Your task to perform on an android device: empty trash in the gmail app Image 0: 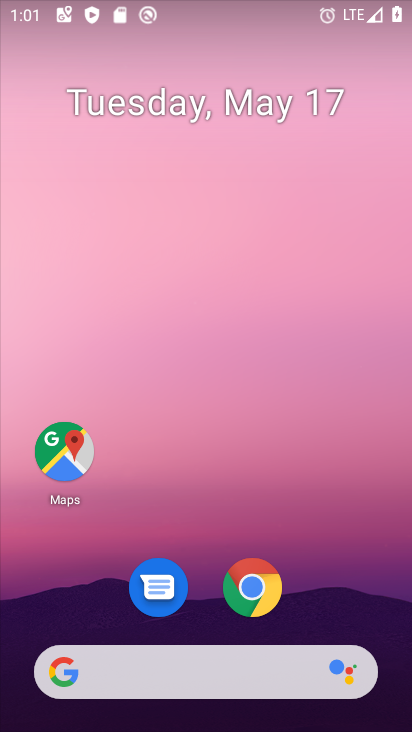
Step 0: drag from (377, 648) to (305, 35)
Your task to perform on an android device: empty trash in the gmail app Image 1: 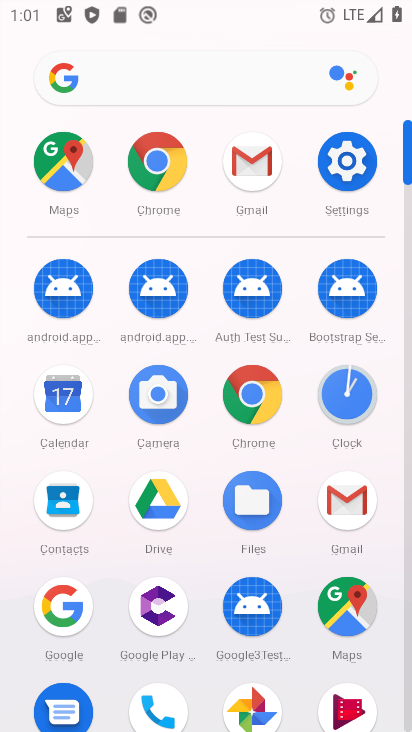
Step 1: click (338, 483)
Your task to perform on an android device: empty trash in the gmail app Image 2: 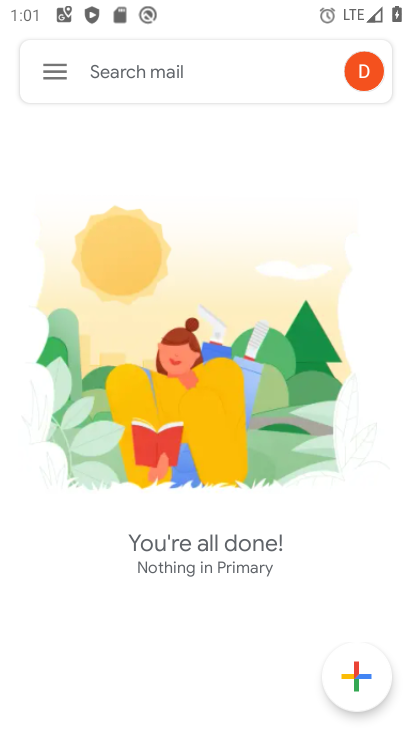
Step 2: click (44, 63)
Your task to perform on an android device: empty trash in the gmail app Image 3: 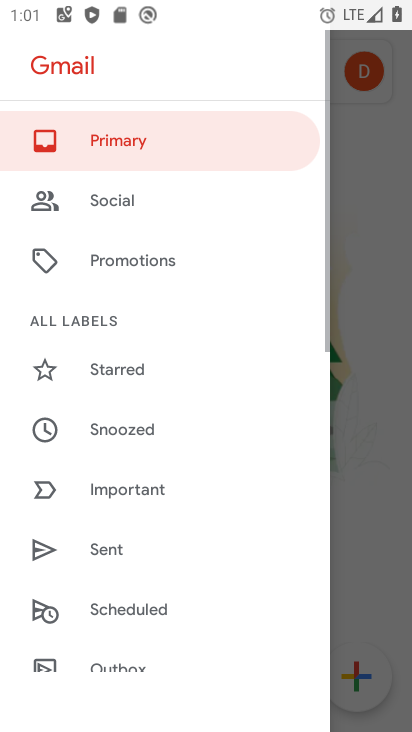
Step 3: drag from (114, 634) to (144, 254)
Your task to perform on an android device: empty trash in the gmail app Image 4: 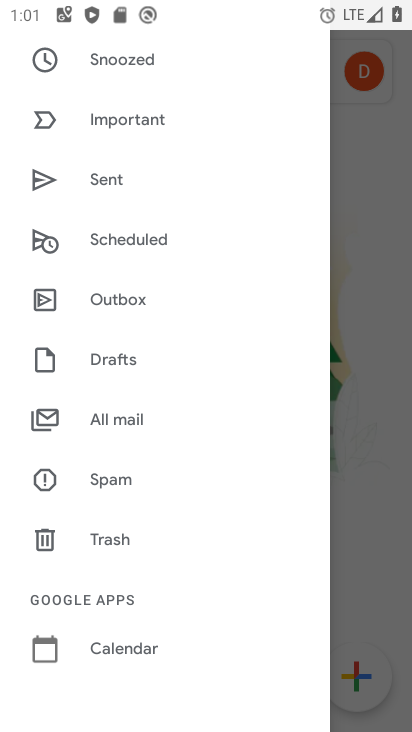
Step 4: click (120, 534)
Your task to perform on an android device: empty trash in the gmail app Image 5: 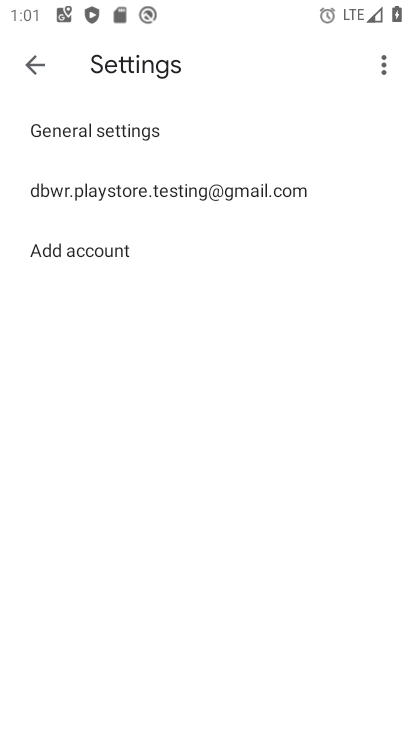
Step 5: press back button
Your task to perform on an android device: empty trash in the gmail app Image 6: 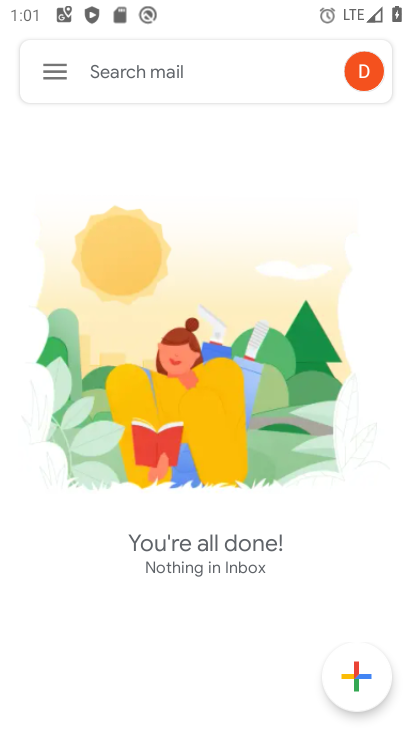
Step 6: click (42, 65)
Your task to perform on an android device: empty trash in the gmail app Image 7: 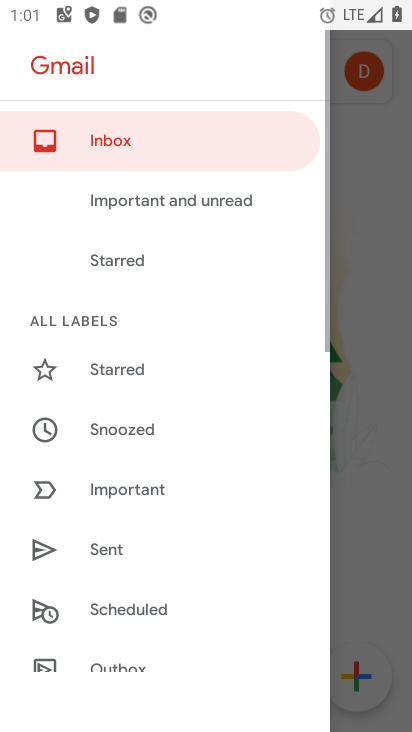
Step 7: drag from (150, 631) to (175, 206)
Your task to perform on an android device: empty trash in the gmail app Image 8: 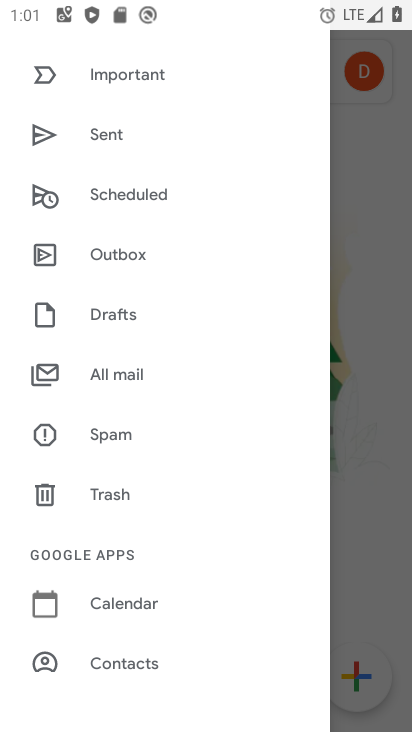
Step 8: click (124, 486)
Your task to perform on an android device: empty trash in the gmail app Image 9: 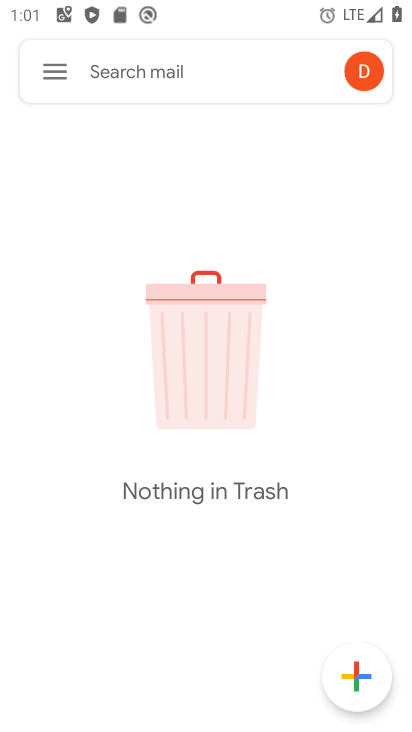
Step 9: task complete